Your task to perform on an android device: Show me the alarms in the clock app Image 0: 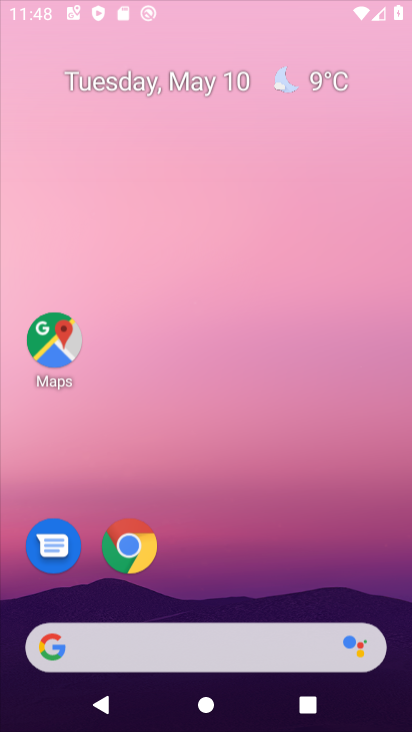
Step 0: click (235, 198)
Your task to perform on an android device: Show me the alarms in the clock app Image 1: 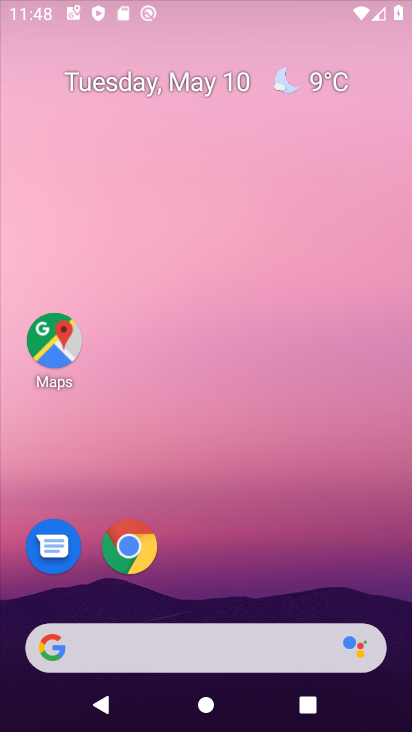
Step 1: drag from (213, 508) to (224, 427)
Your task to perform on an android device: Show me the alarms in the clock app Image 2: 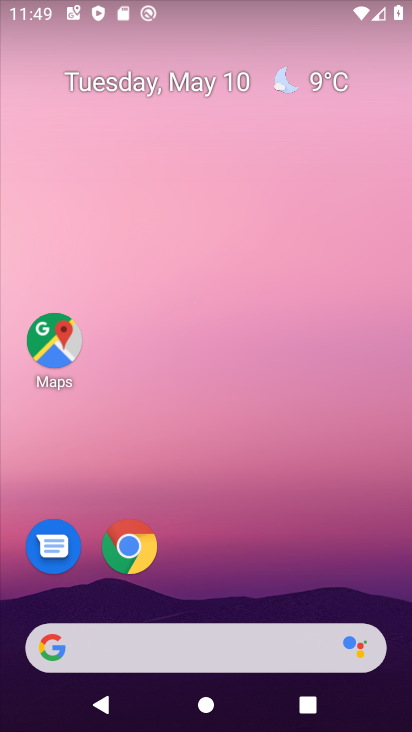
Step 2: drag from (189, 622) to (242, 305)
Your task to perform on an android device: Show me the alarms in the clock app Image 3: 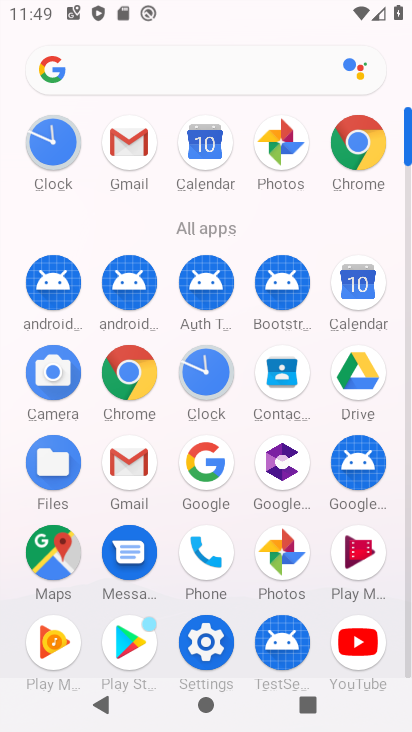
Step 3: drag from (242, 621) to (242, 333)
Your task to perform on an android device: Show me the alarms in the clock app Image 4: 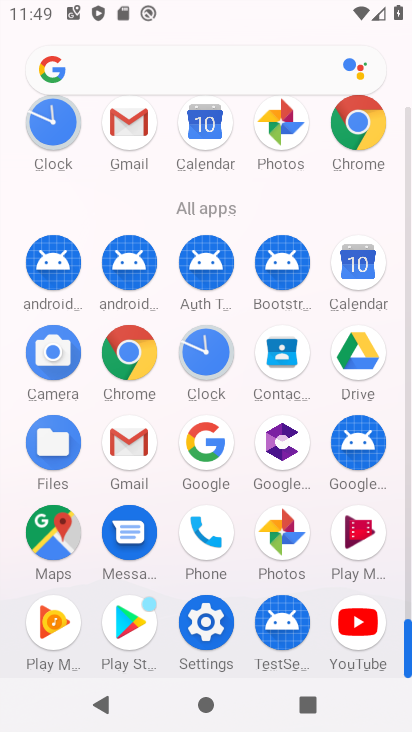
Step 4: click (205, 355)
Your task to perform on an android device: Show me the alarms in the clock app Image 5: 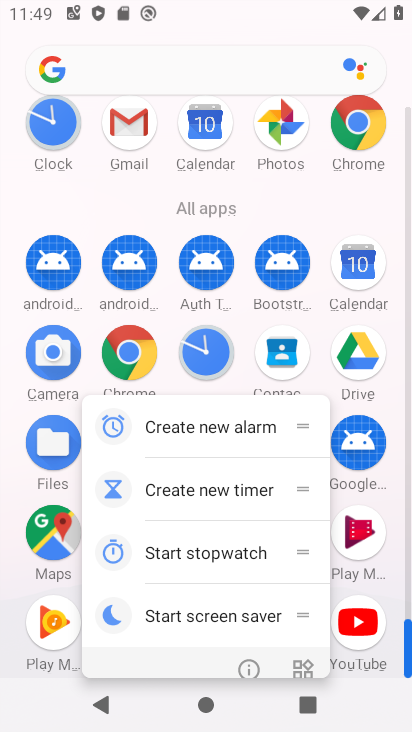
Step 5: click (251, 667)
Your task to perform on an android device: Show me the alarms in the clock app Image 6: 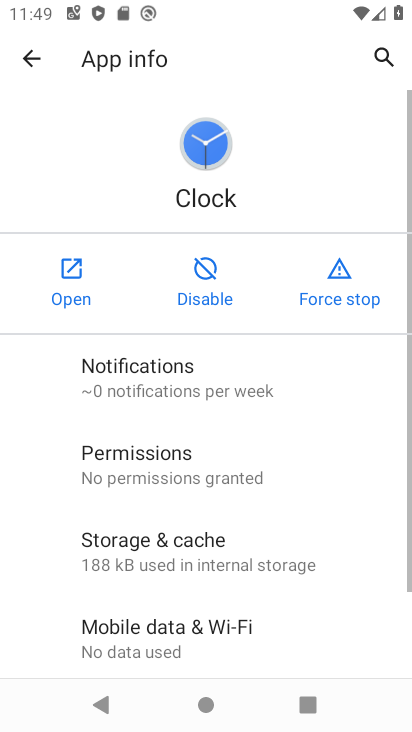
Step 6: click (34, 287)
Your task to perform on an android device: Show me the alarms in the clock app Image 7: 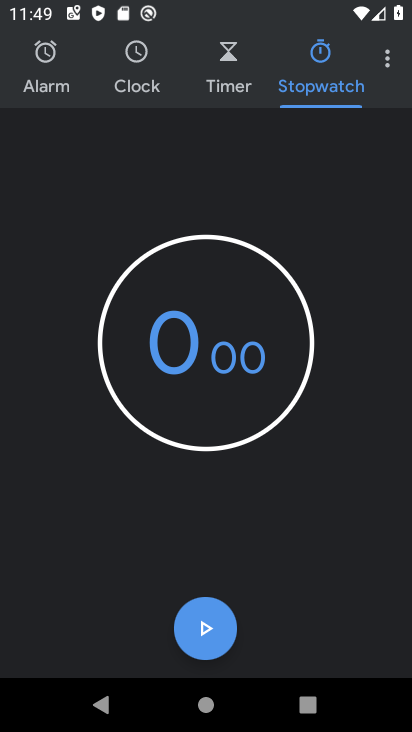
Step 7: drag from (283, 559) to (312, 320)
Your task to perform on an android device: Show me the alarms in the clock app Image 8: 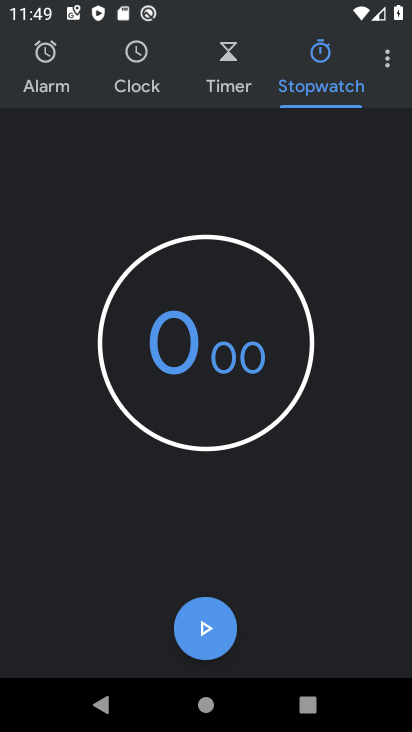
Step 8: click (393, 56)
Your task to perform on an android device: Show me the alarms in the clock app Image 9: 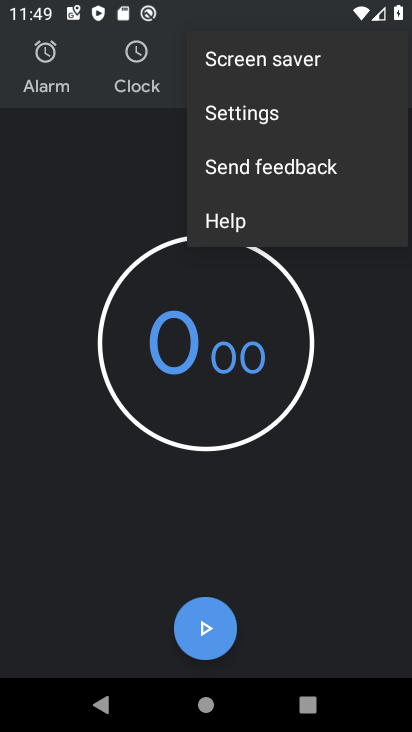
Step 9: click (297, 124)
Your task to perform on an android device: Show me the alarms in the clock app Image 10: 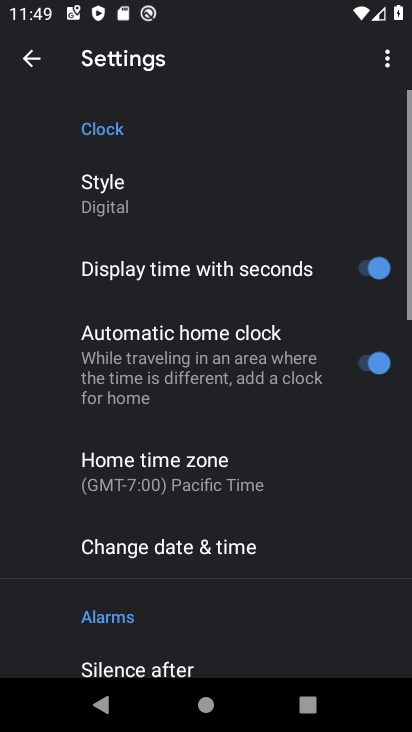
Step 10: drag from (230, 597) to (261, 242)
Your task to perform on an android device: Show me the alarms in the clock app Image 11: 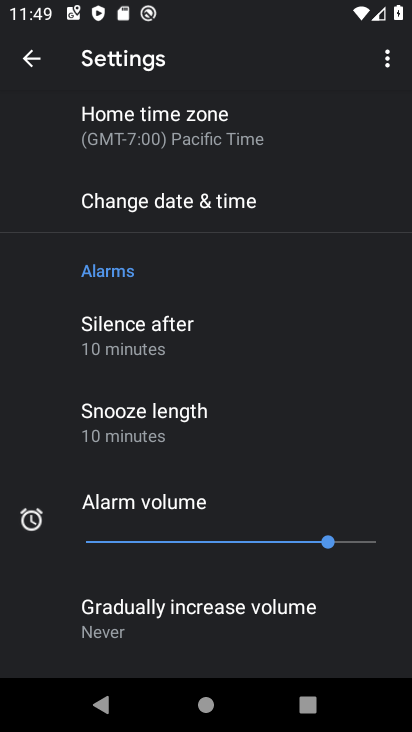
Step 11: drag from (225, 581) to (232, 321)
Your task to perform on an android device: Show me the alarms in the clock app Image 12: 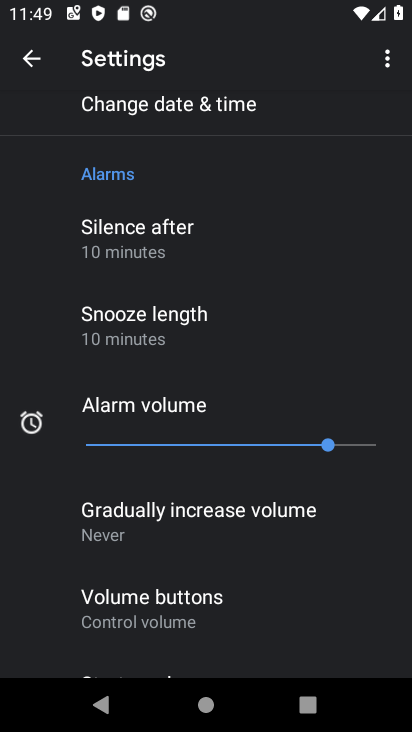
Step 12: drag from (223, 621) to (229, 321)
Your task to perform on an android device: Show me the alarms in the clock app Image 13: 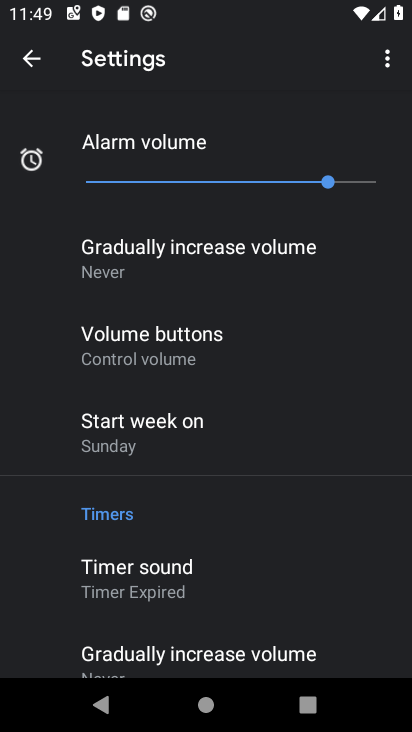
Step 13: drag from (268, 623) to (268, 402)
Your task to perform on an android device: Show me the alarms in the clock app Image 14: 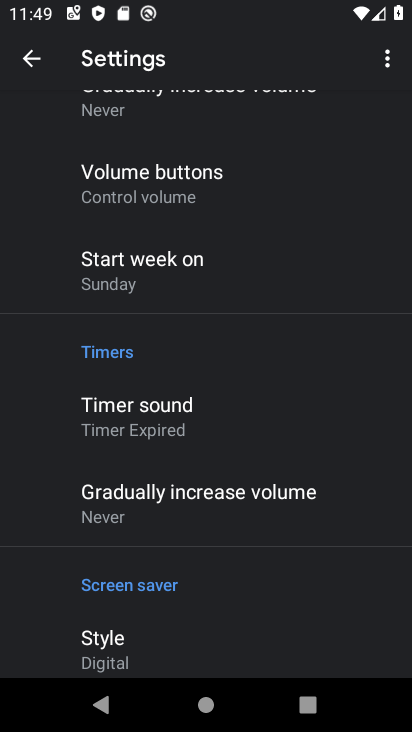
Step 14: drag from (237, 243) to (282, 639)
Your task to perform on an android device: Show me the alarms in the clock app Image 15: 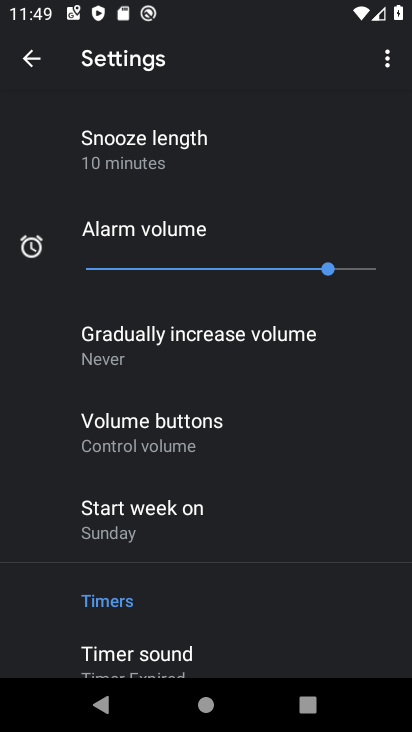
Step 15: drag from (180, 264) to (353, 729)
Your task to perform on an android device: Show me the alarms in the clock app Image 16: 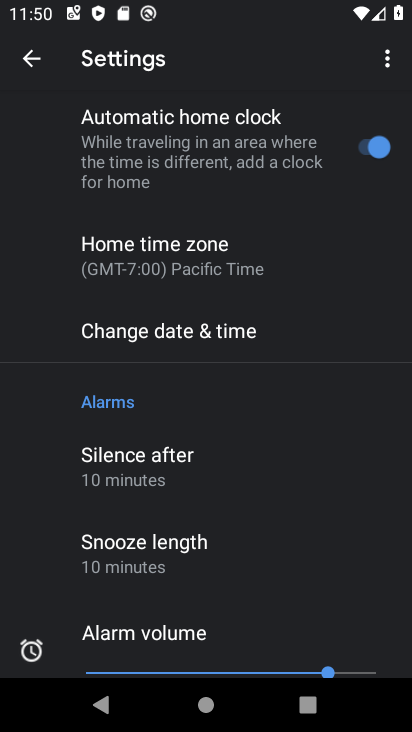
Step 16: drag from (260, 502) to (351, 152)
Your task to perform on an android device: Show me the alarms in the clock app Image 17: 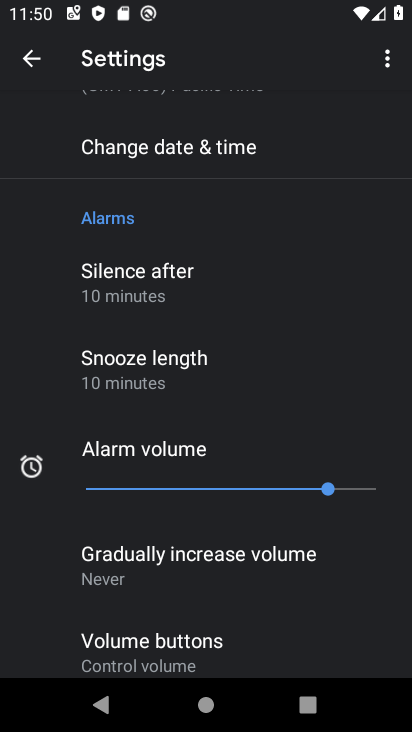
Step 17: drag from (219, 251) to (329, 710)
Your task to perform on an android device: Show me the alarms in the clock app Image 18: 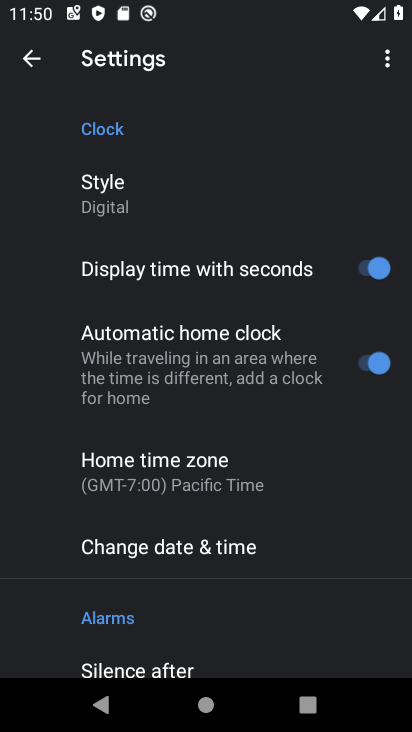
Step 18: click (30, 58)
Your task to perform on an android device: Show me the alarms in the clock app Image 19: 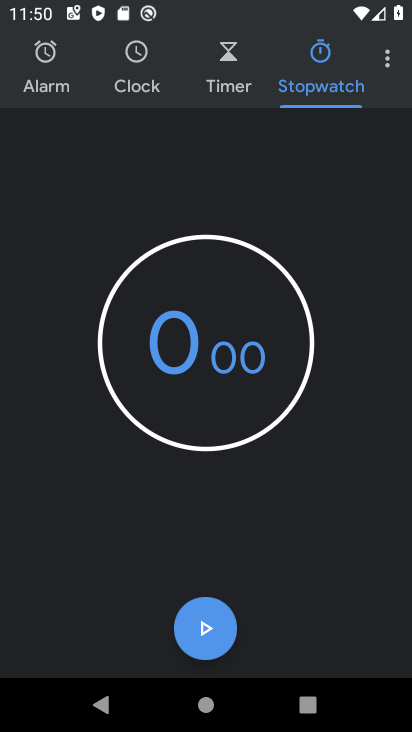
Step 19: click (30, 58)
Your task to perform on an android device: Show me the alarms in the clock app Image 20: 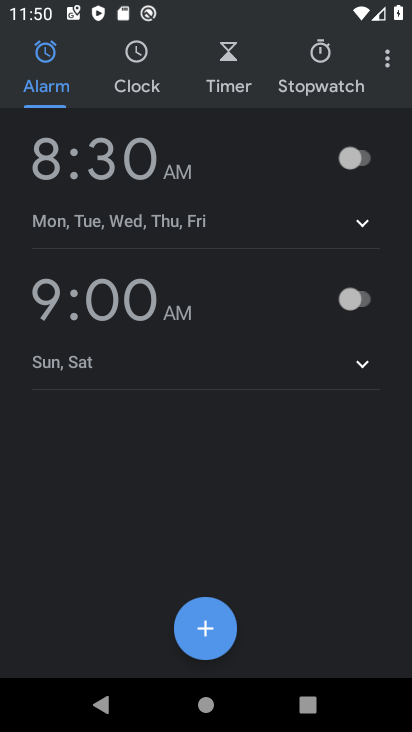
Step 20: task complete